Your task to perform on an android device: turn pop-ups on in chrome Image 0: 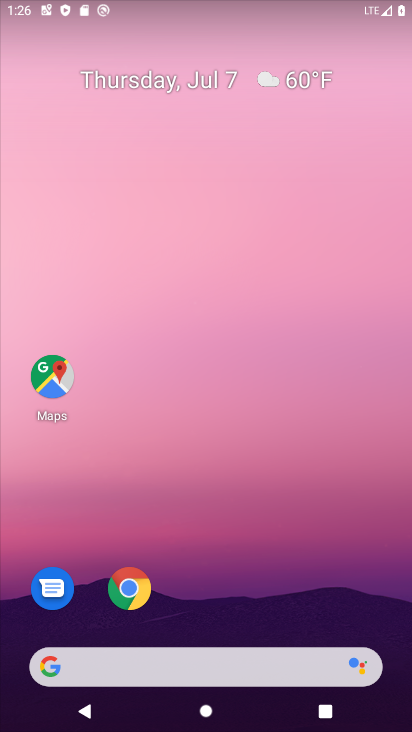
Step 0: drag from (218, 576) to (187, 280)
Your task to perform on an android device: turn pop-ups on in chrome Image 1: 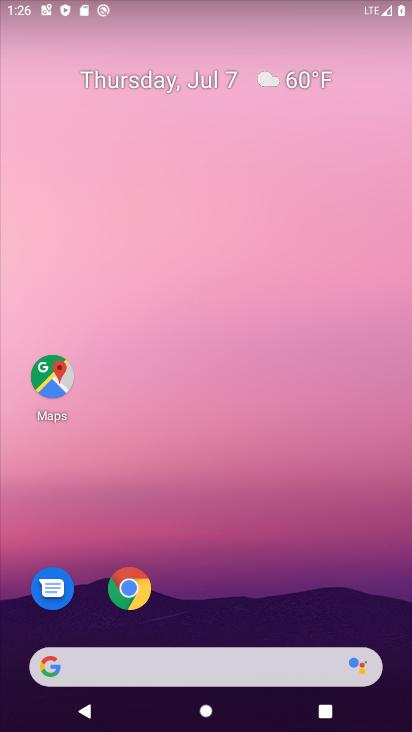
Step 1: drag from (217, 516) to (230, 227)
Your task to perform on an android device: turn pop-ups on in chrome Image 2: 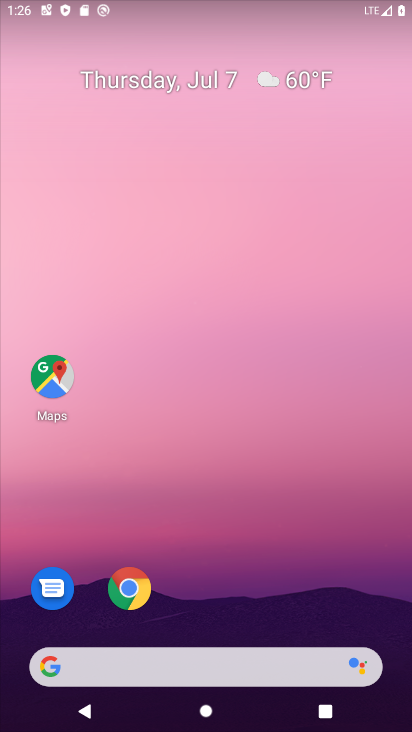
Step 2: drag from (271, 625) to (274, 210)
Your task to perform on an android device: turn pop-ups on in chrome Image 3: 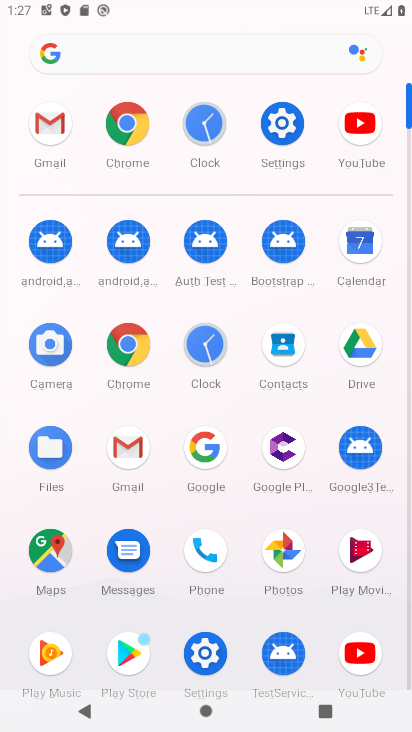
Step 3: click (120, 138)
Your task to perform on an android device: turn pop-ups on in chrome Image 4: 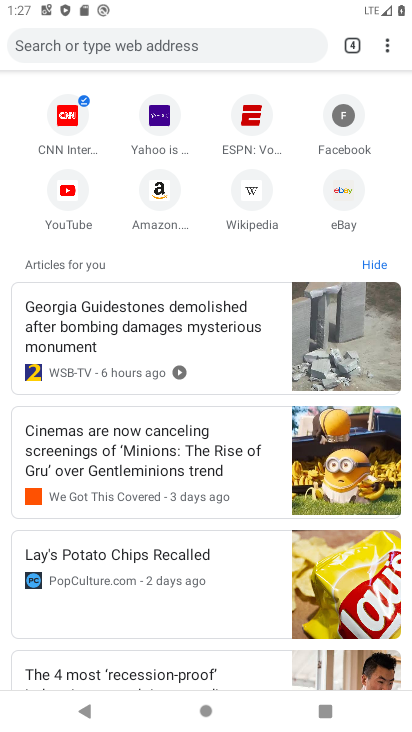
Step 4: click (383, 41)
Your task to perform on an android device: turn pop-ups on in chrome Image 5: 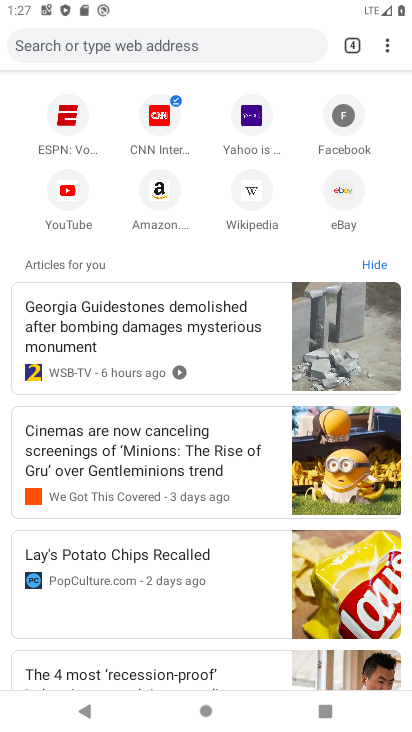
Step 5: click (381, 46)
Your task to perform on an android device: turn pop-ups on in chrome Image 6: 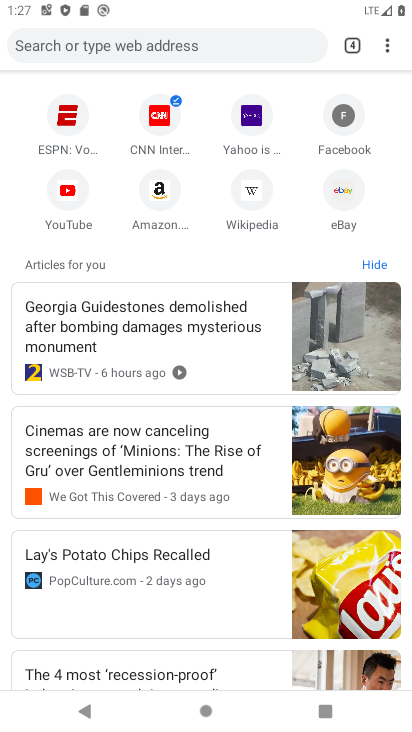
Step 6: click (390, 51)
Your task to perform on an android device: turn pop-ups on in chrome Image 7: 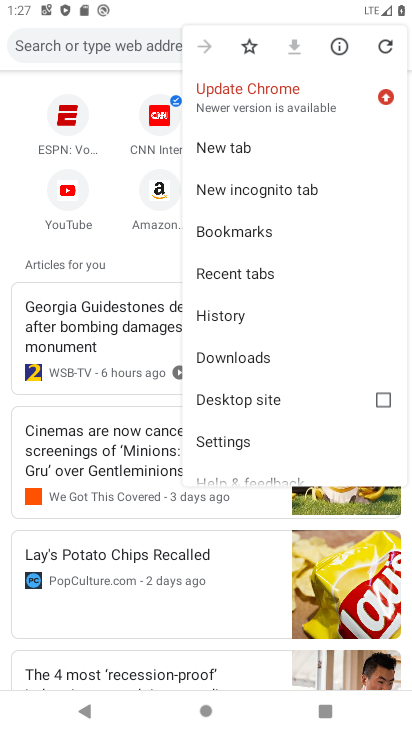
Step 7: click (272, 146)
Your task to perform on an android device: turn pop-ups on in chrome Image 8: 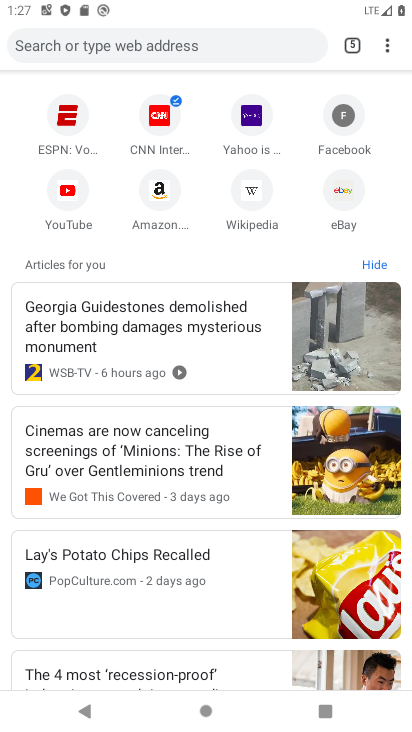
Step 8: click (388, 43)
Your task to perform on an android device: turn pop-ups on in chrome Image 9: 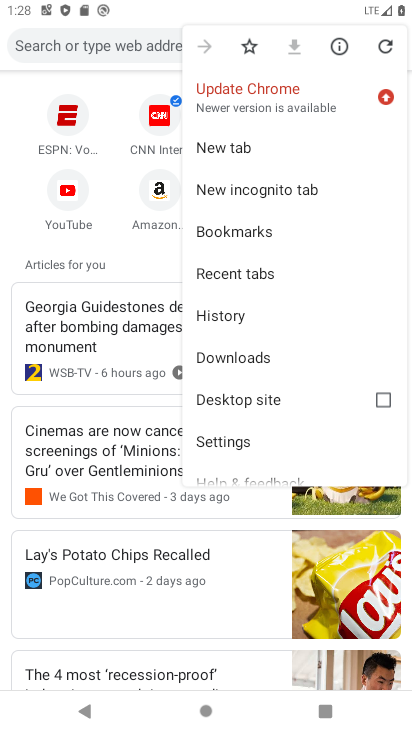
Step 9: click (243, 438)
Your task to perform on an android device: turn pop-ups on in chrome Image 10: 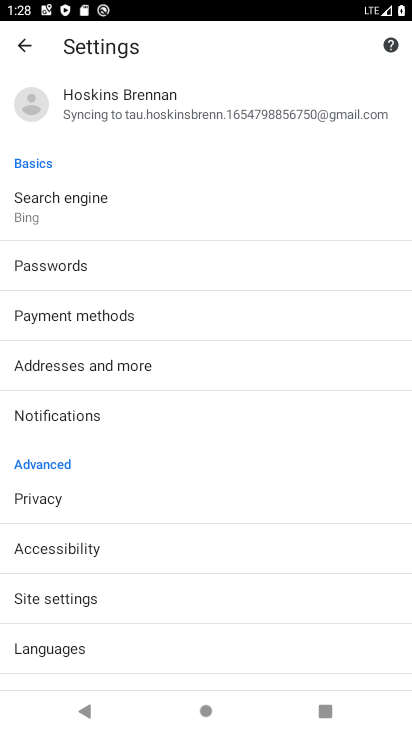
Step 10: drag from (134, 539) to (184, 251)
Your task to perform on an android device: turn pop-ups on in chrome Image 11: 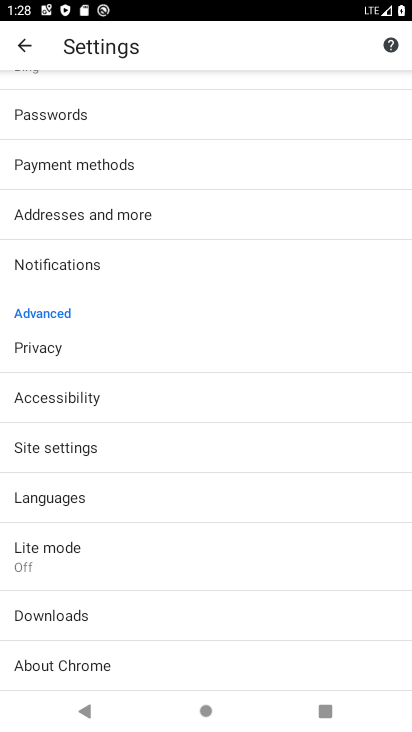
Step 11: click (124, 446)
Your task to perform on an android device: turn pop-ups on in chrome Image 12: 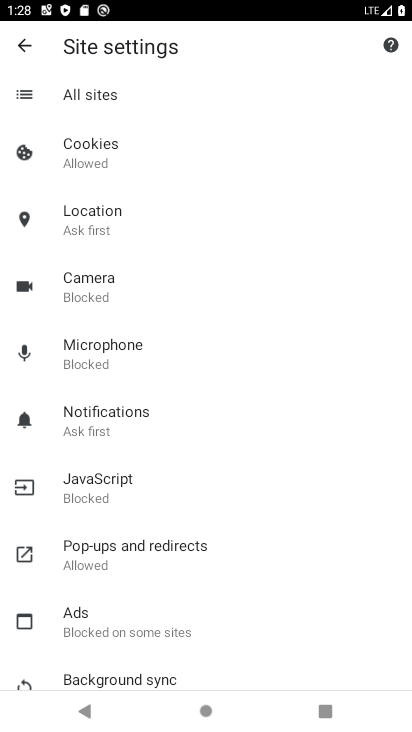
Step 12: click (172, 557)
Your task to perform on an android device: turn pop-ups on in chrome Image 13: 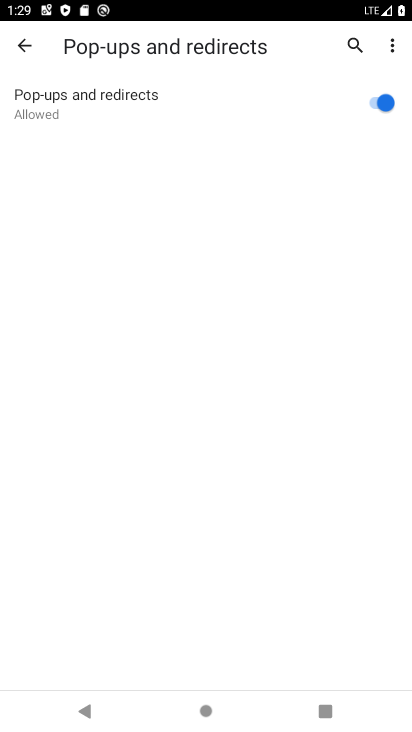
Step 13: task complete